Your task to perform on an android device: set default search engine in the chrome app Image 0: 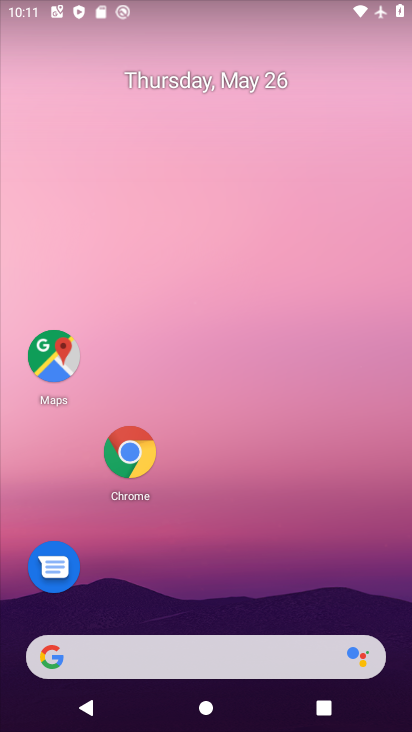
Step 0: click (141, 462)
Your task to perform on an android device: set default search engine in the chrome app Image 1: 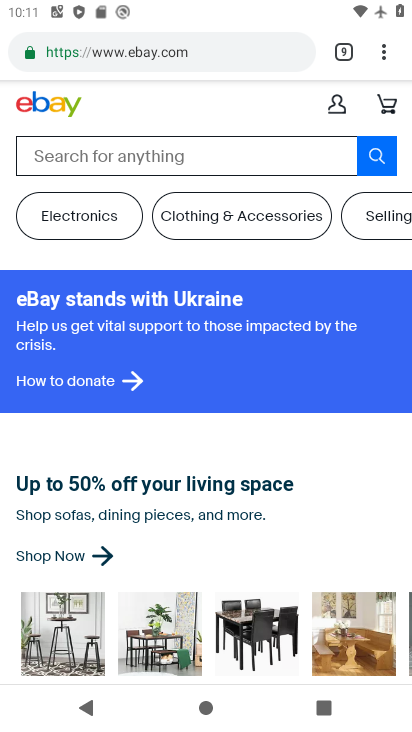
Step 1: drag from (379, 52) to (241, 614)
Your task to perform on an android device: set default search engine in the chrome app Image 2: 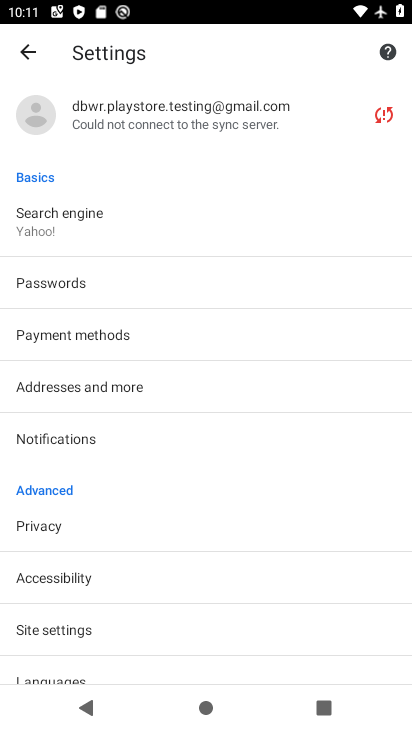
Step 2: click (69, 217)
Your task to perform on an android device: set default search engine in the chrome app Image 3: 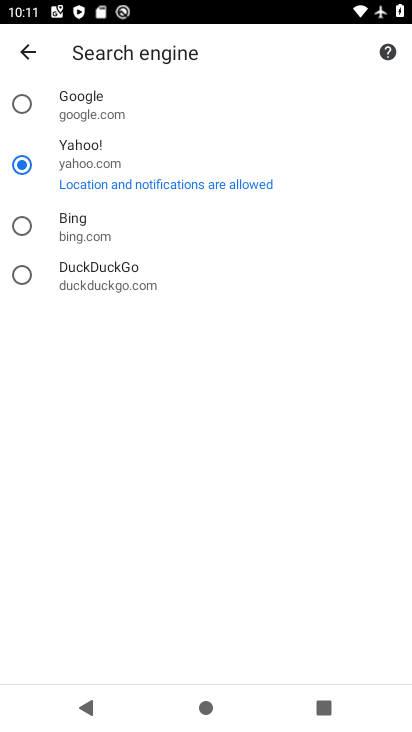
Step 3: click (27, 99)
Your task to perform on an android device: set default search engine in the chrome app Image 4: 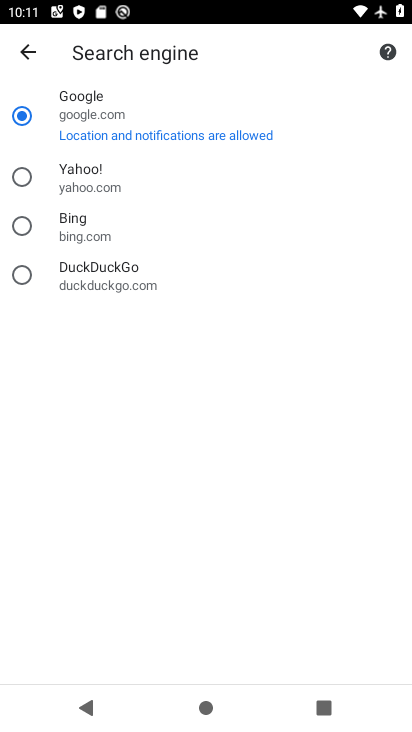
Step 4: task complete